Your task to perform on an android device: empty trash in the gmail app Image 0: 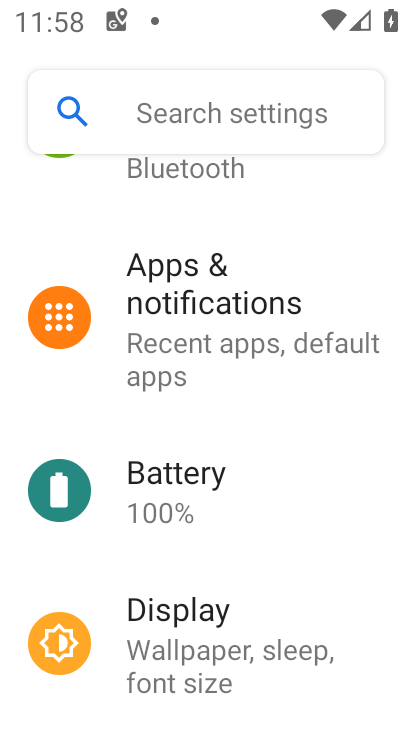
Step 0: press home button
Your task to perform on an android device: empty trash in the gmail app Image 1: 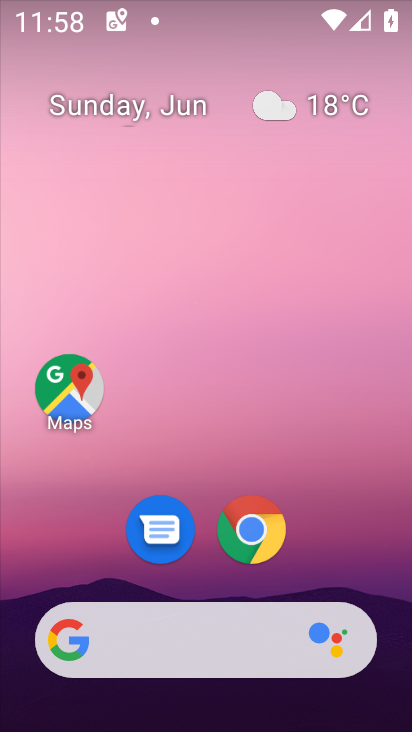
Step 1: drag from (362, 417) to (323, 37)
Your task to perform on an android device: empty trash in the gmail app Image 2: 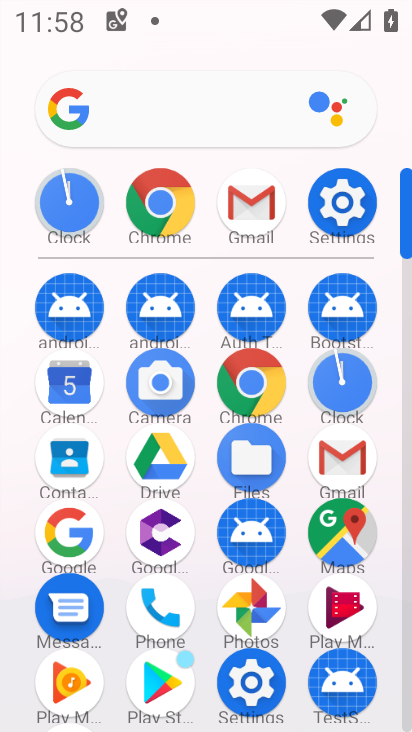
Step 2: click (270, 188)
Your task to perform on an android device: empty trash in the gmail app Image 3: 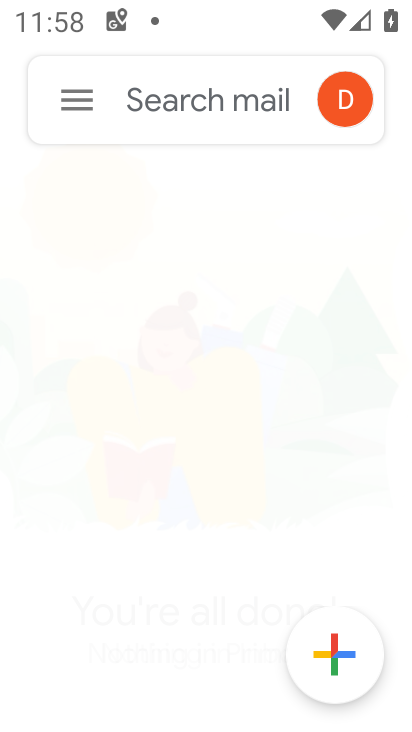
Step 3: click (74, 120)
Your task to perform on an android device: empty trash in the gmail app Image 4: 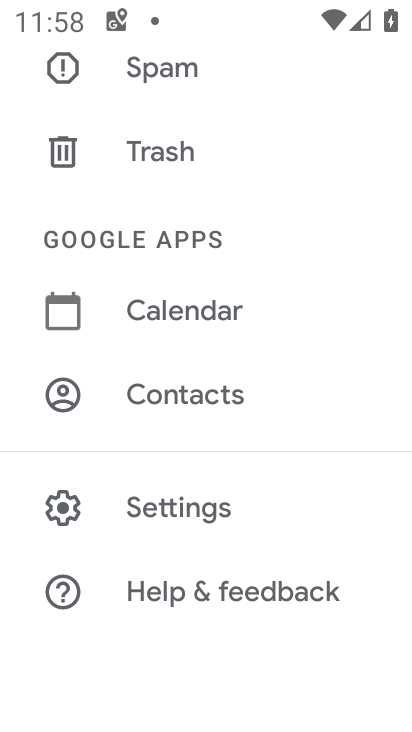
Step 4: click (178, 139)
Your task to perform on an android device: empty trash in the gmail app Image 5: 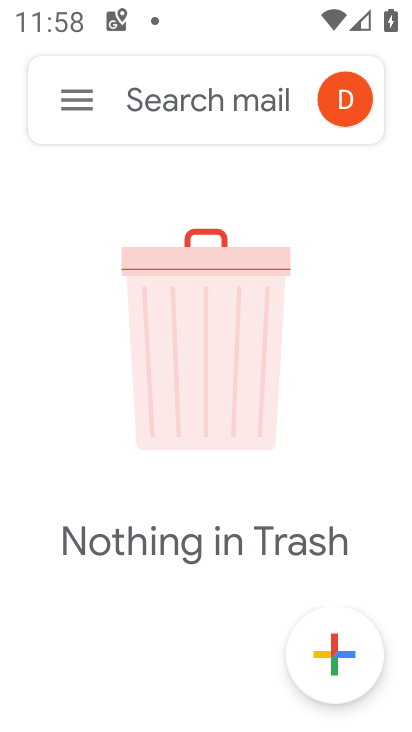
Step 5: click (68, 106)
Your task to perform on an android device: empty trash in the gmail app Image 6: 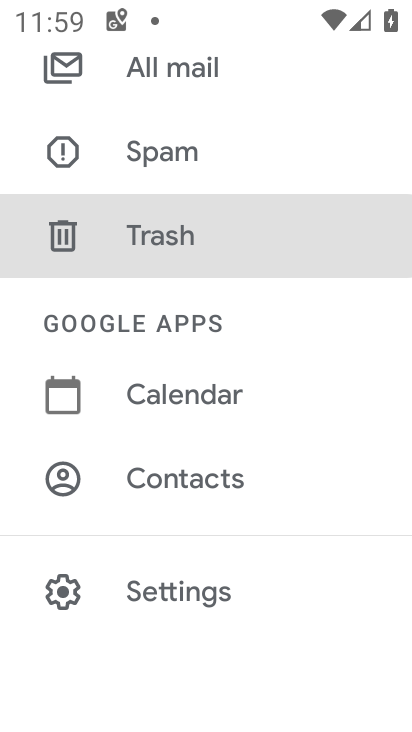
Step 6: click (160, 238)
Your task to perform on an android device: empty trash in the gmail app Image 7: 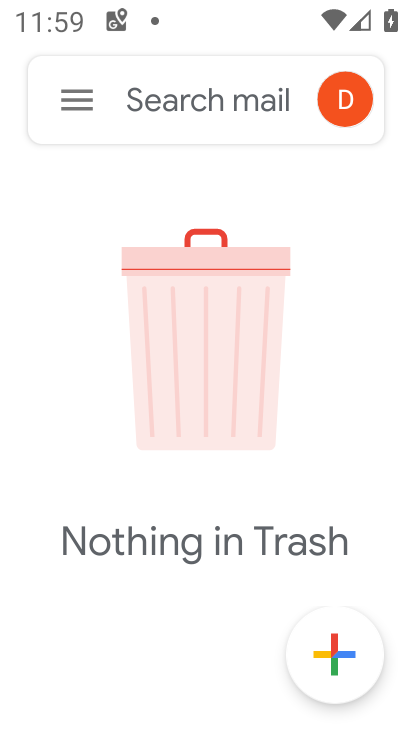
Step 7: task complete